Your task to perform on an android device: Open Reddit.com Image 0: 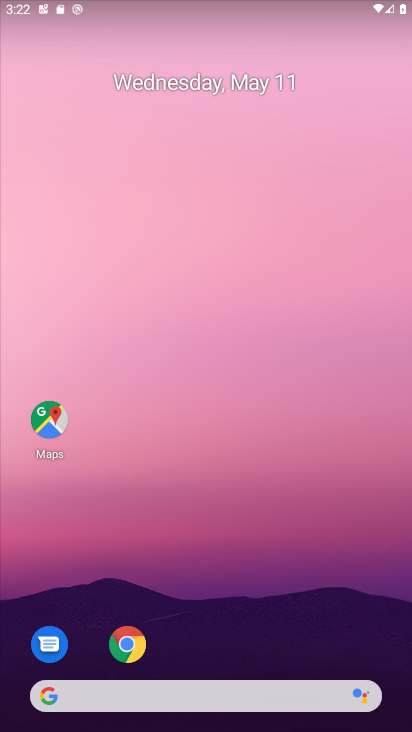
Step 0: drag from (203, 672) to (162, 3)
Your task to perform on an android device: Open Reddit.com Image 1: 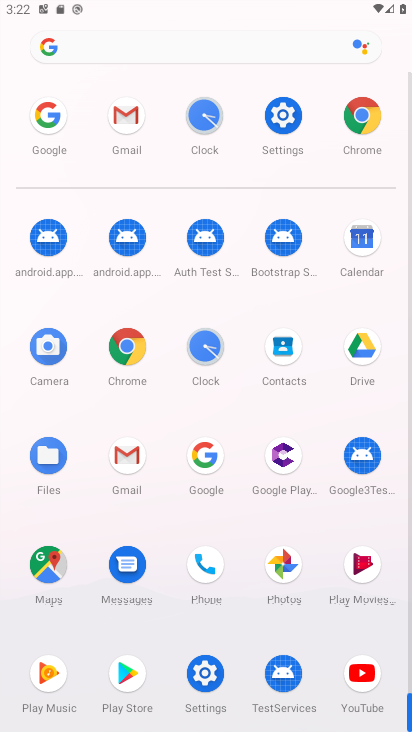
Step 1: click (117, 361)
Your task to perform on an android device: Open Reddit.com Image 2: 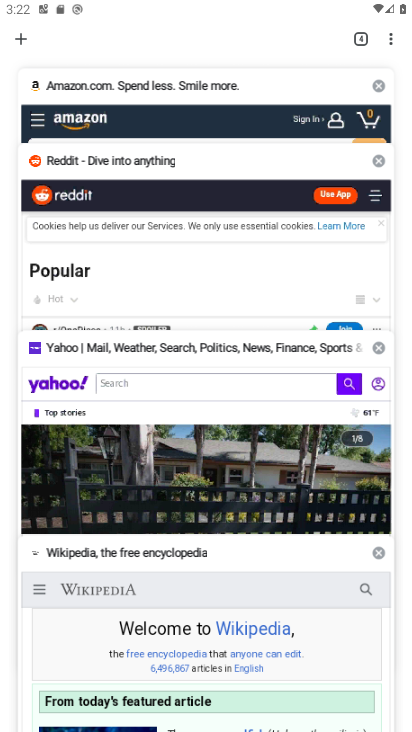
Step 2: click (134, 257)
Your task to perform on an android device: Open Reddit.com Image 3: 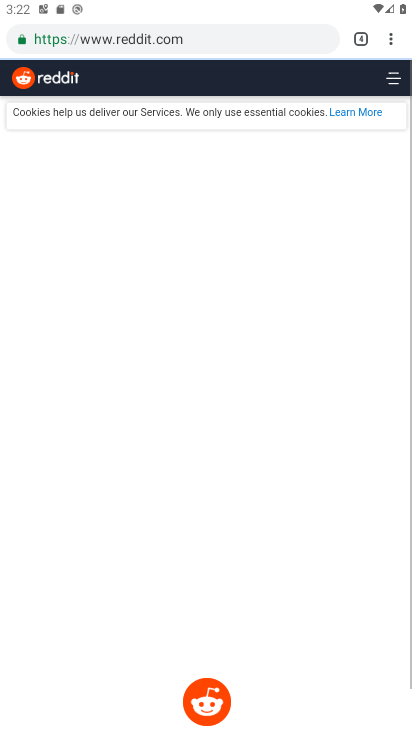
Step 3: task complete